Your task to perform on an android device: Open Wikipedia Image 0: 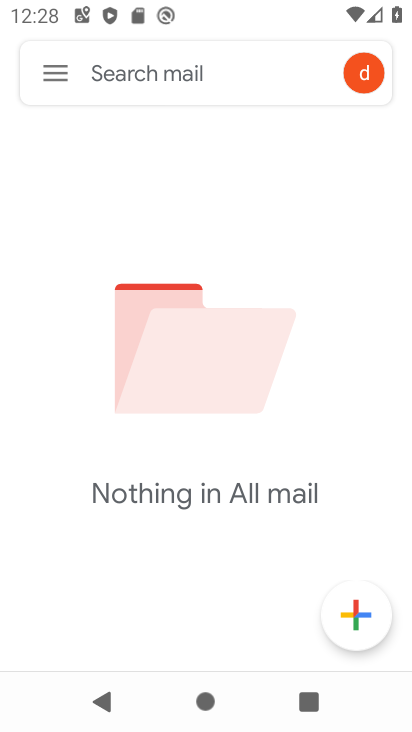
Step 0: press home button
Your task to perform on an android device: Open Wikipedia Image 1: 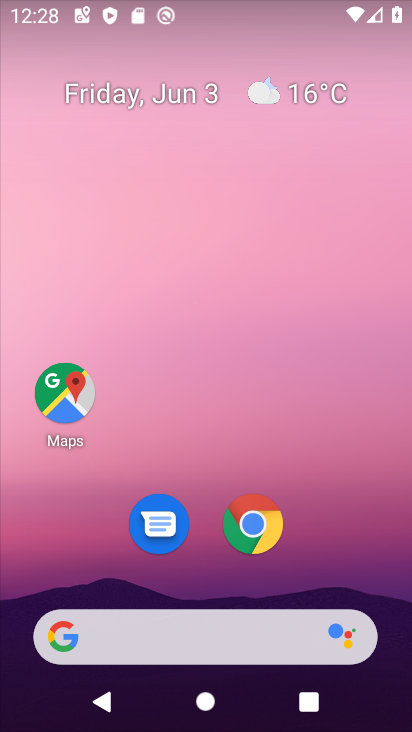
Step 1: drag from (304, 546) to (279, 27)
Your task to perform on an android device: Open Wikipedia Image 2: 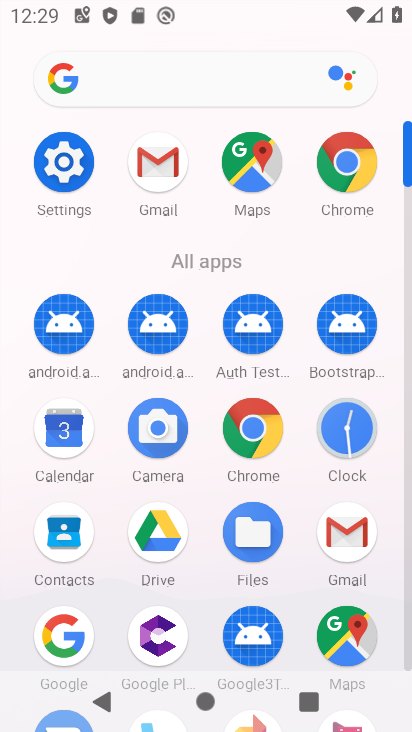
Step 2: click (354, 173)
Your task to perform on an android device: Open Wikipedia Image 3: 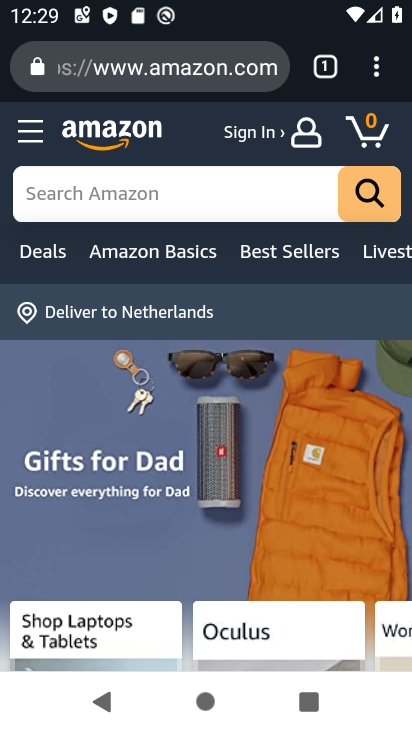
Step 3: click (376, 72)
Your task to perform on an android device: Open Wikipedia Image 4: 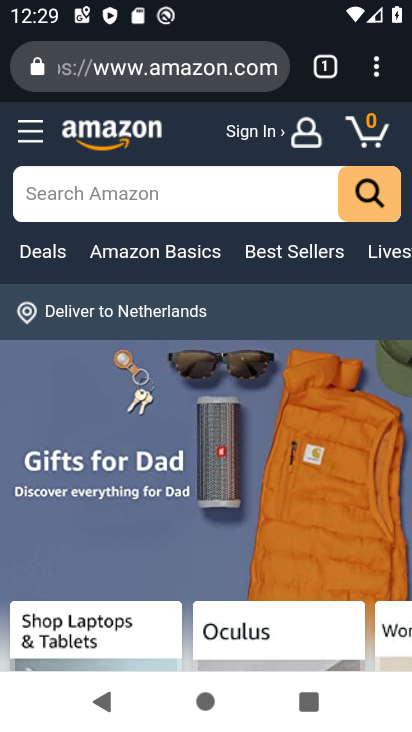
Step 4: click (376, 72)
Your task to perform on an android device: Open Wikipedia Image 5: 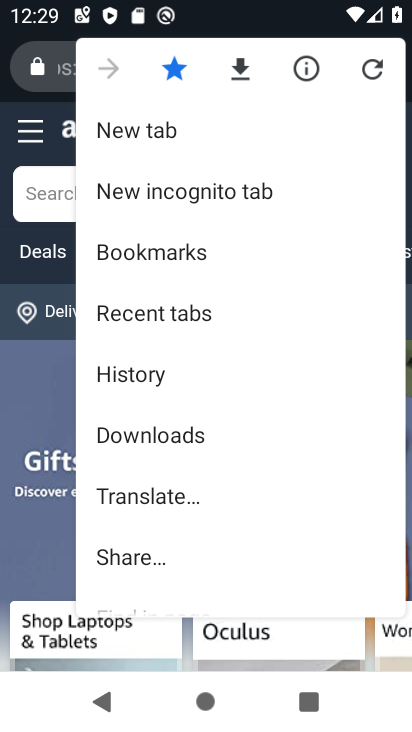
Step 5: click (273, 121)
Your task to perform on an android device: Open Wikipedia Image 6: 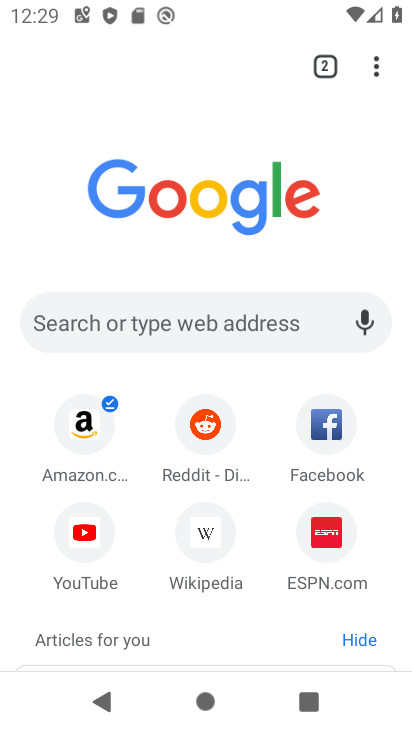
Step 6: click (221, 524)
Your task to perform on an android device: Open Wikipedia Image 7: 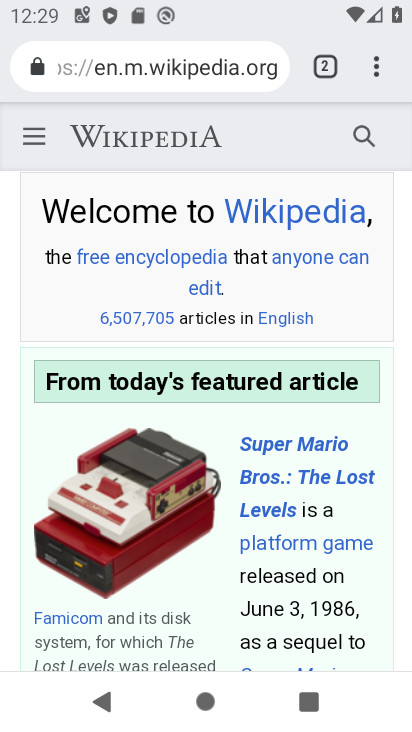
Step 7: task complete